Your task to perform on an android device: turn off wifi Image 0: 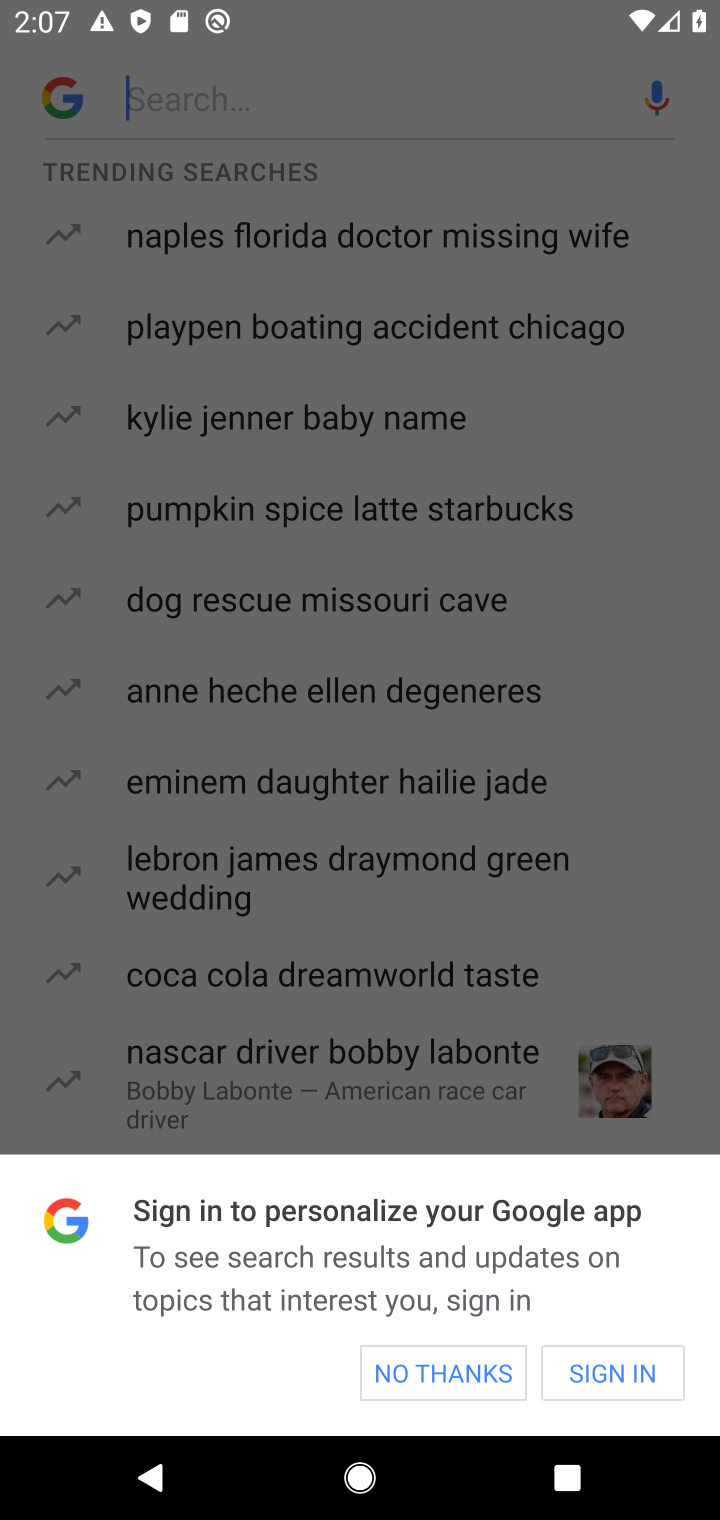
Step 0: press home button
Your task to perform on an android device: turn off wifi Image 1: 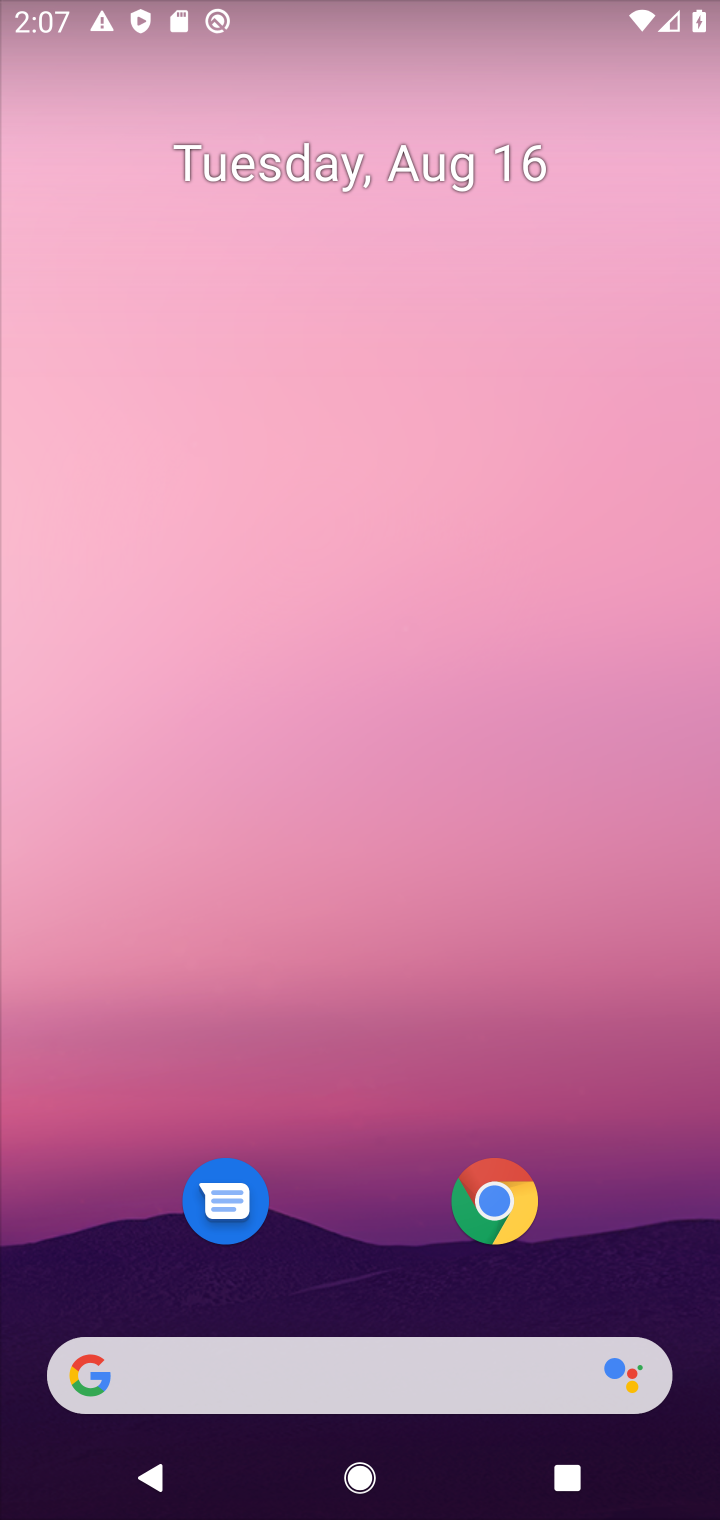
Step 1: drag from (440, 84) to (362, 518)
Your task to perform on an android device: turn off wifi Image 2: 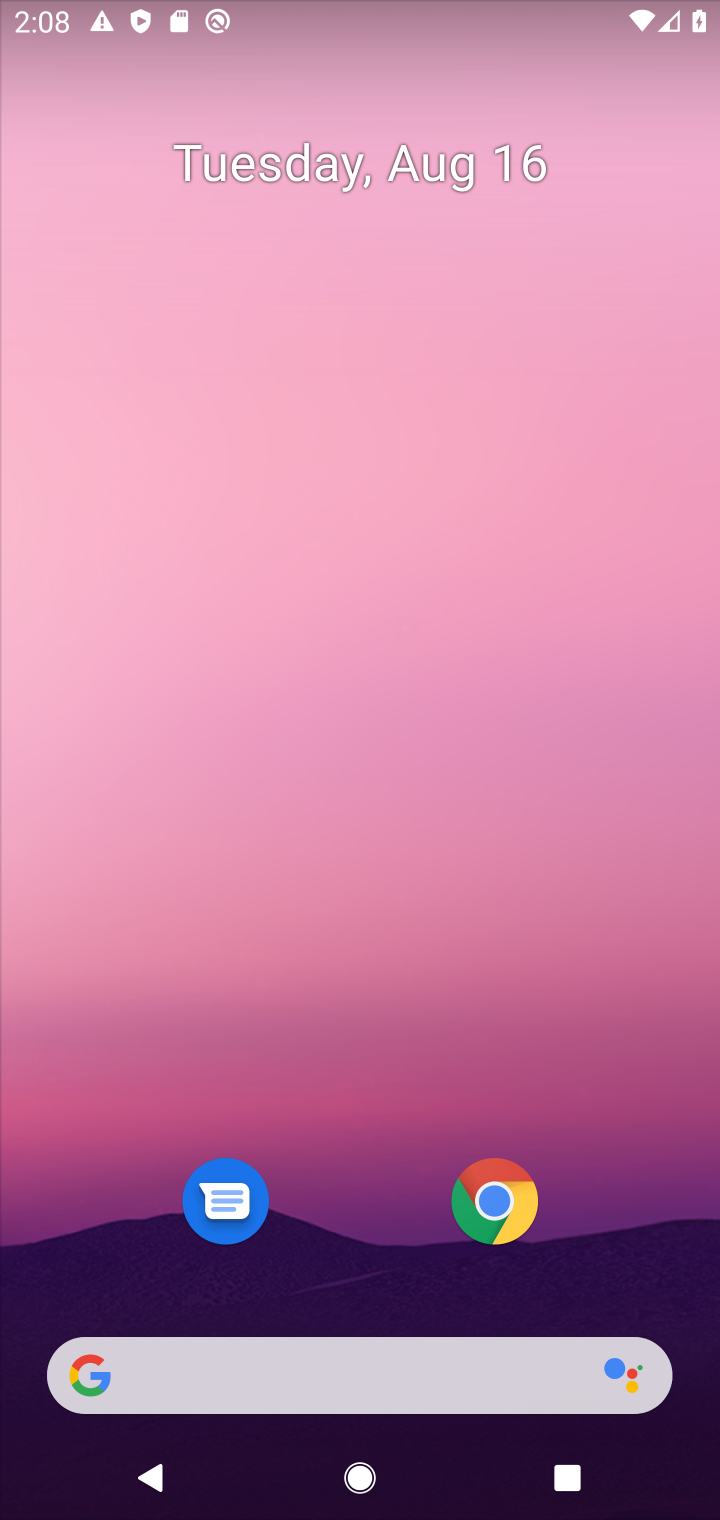
Step 2: drag from (380, 742) to (461, 227)
Your task to perform on an android device: turn off wifi Image 3: 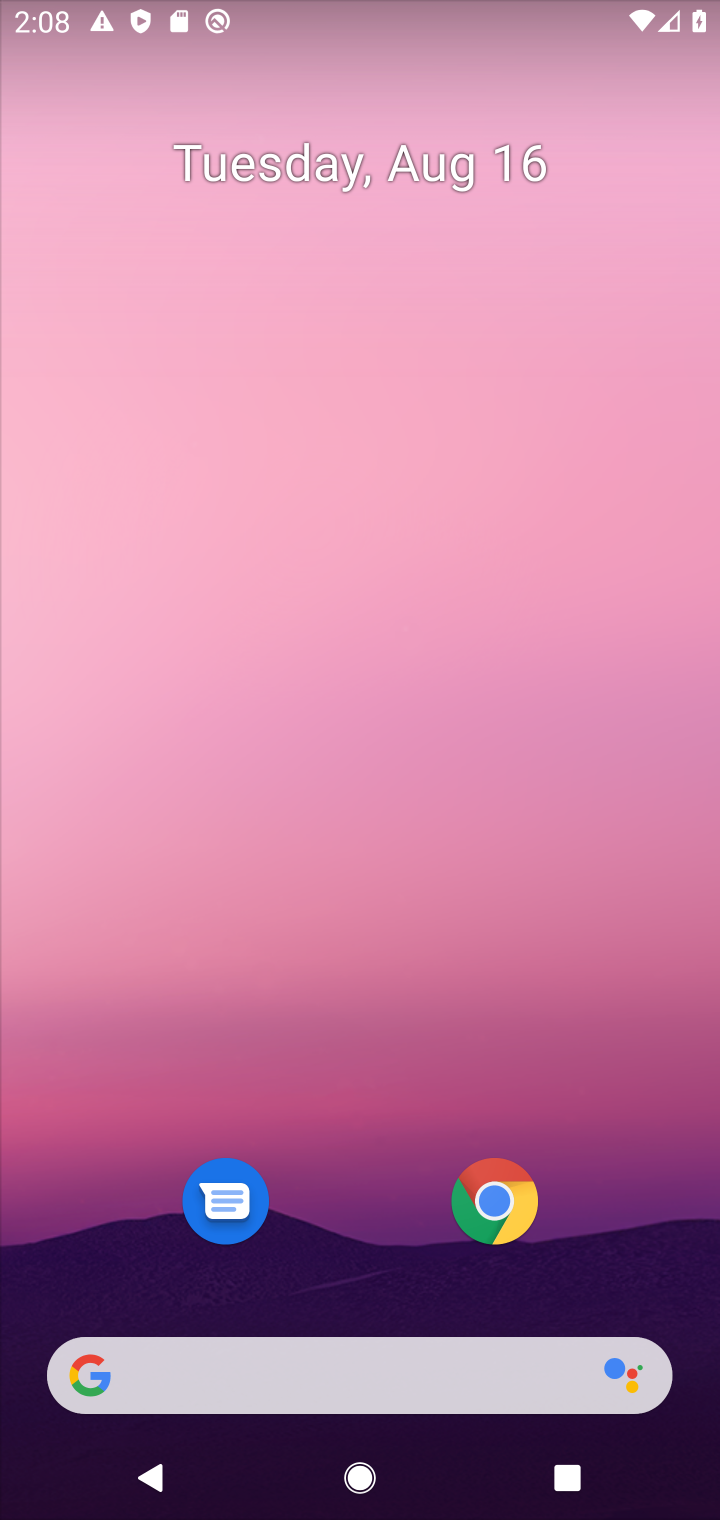
Step 3: drag from (351, 1183) to (345, 98)
Your task to perform on an android device: turn off wifi Image 4: 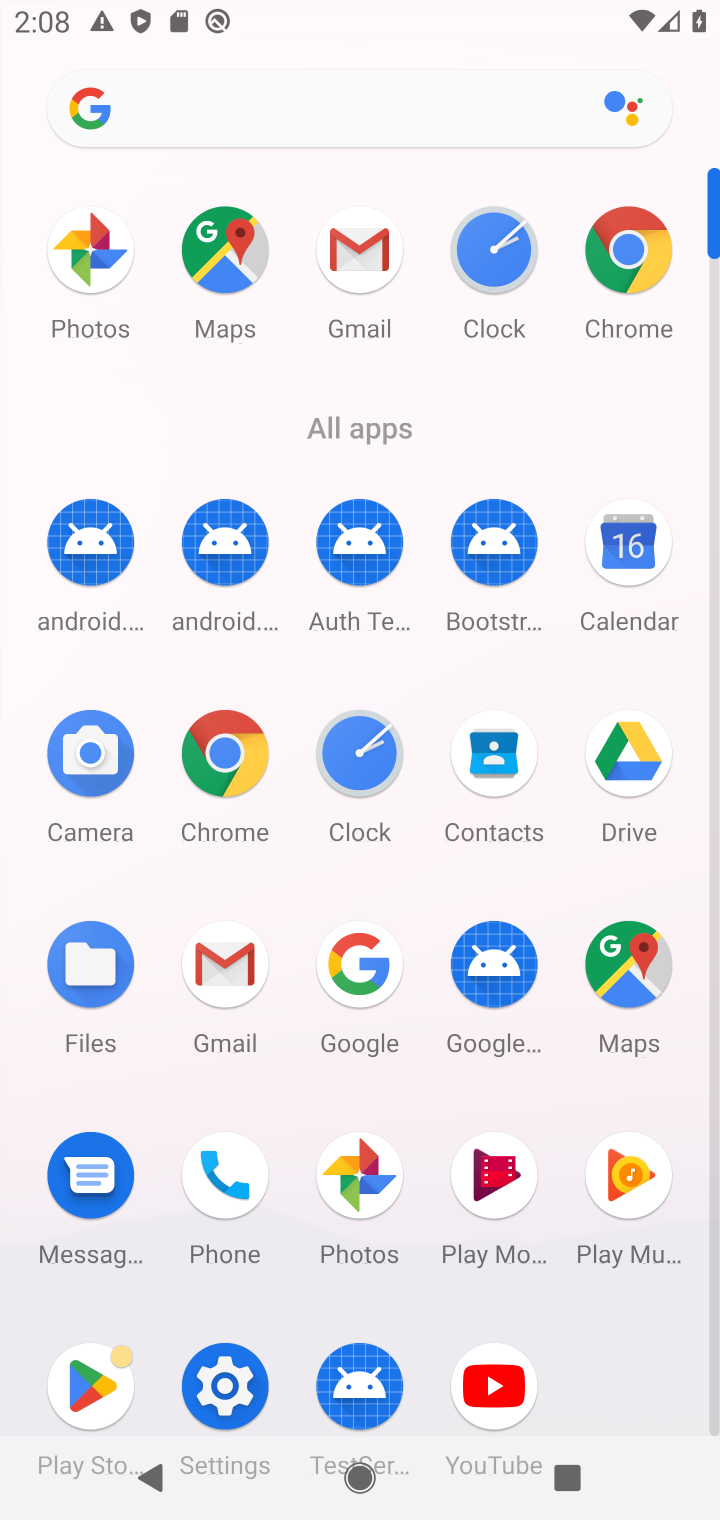
Step 4: click (249, 1400)
Your task to perform on an android device: turn off wifi Image 5: 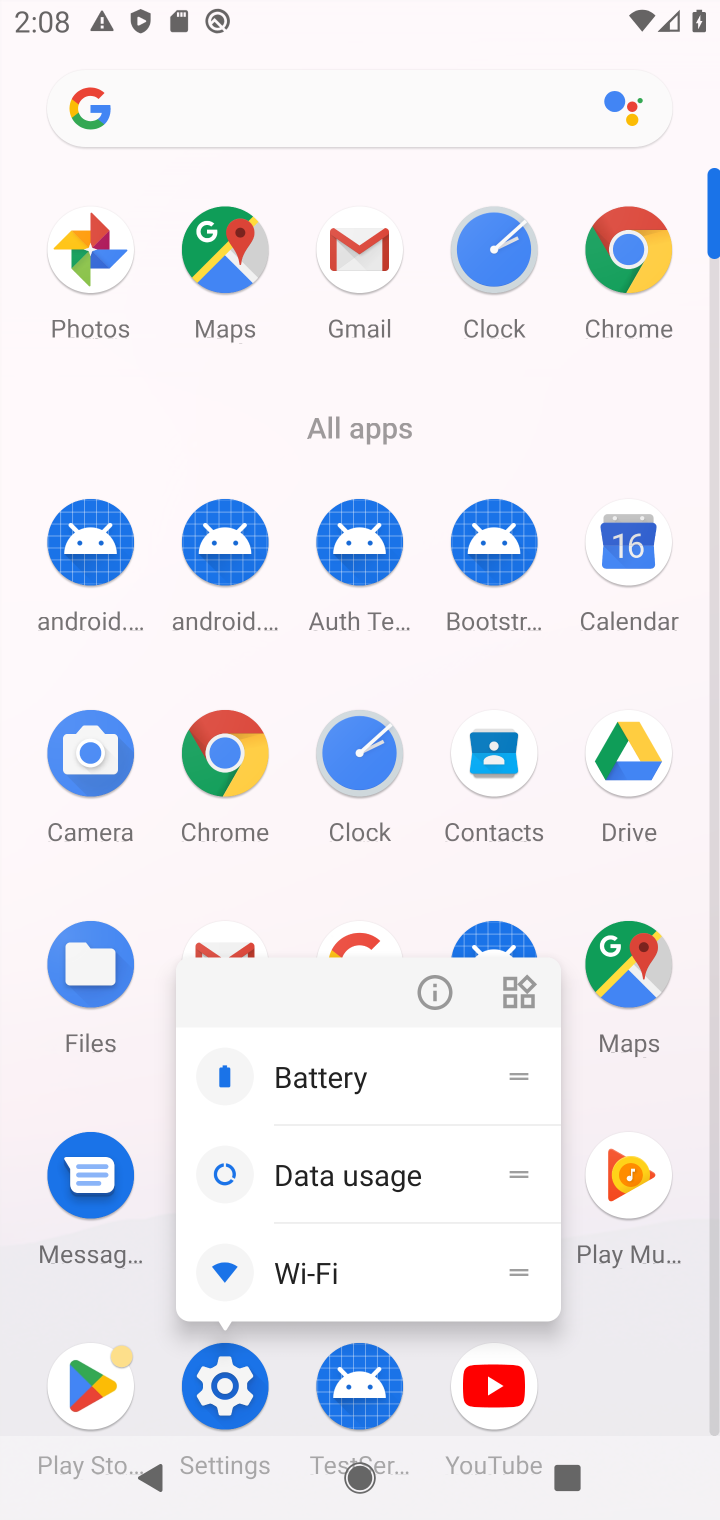
Step 5: click (249, 1400)
Your task to perform on an android device: turn off wifi Image 6: 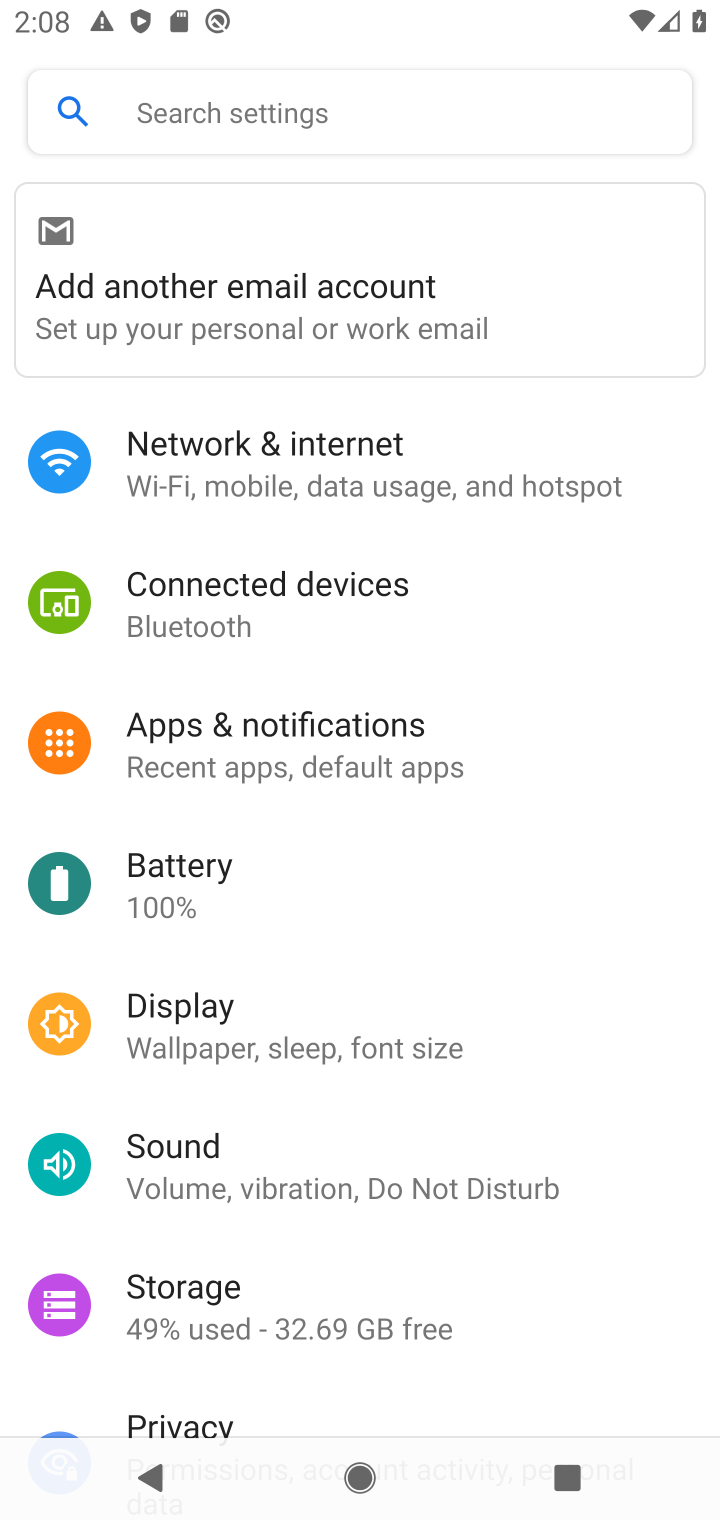
Step 6: click (337, 458)
Your task to perform on an android device: turn off wifi Image 7: 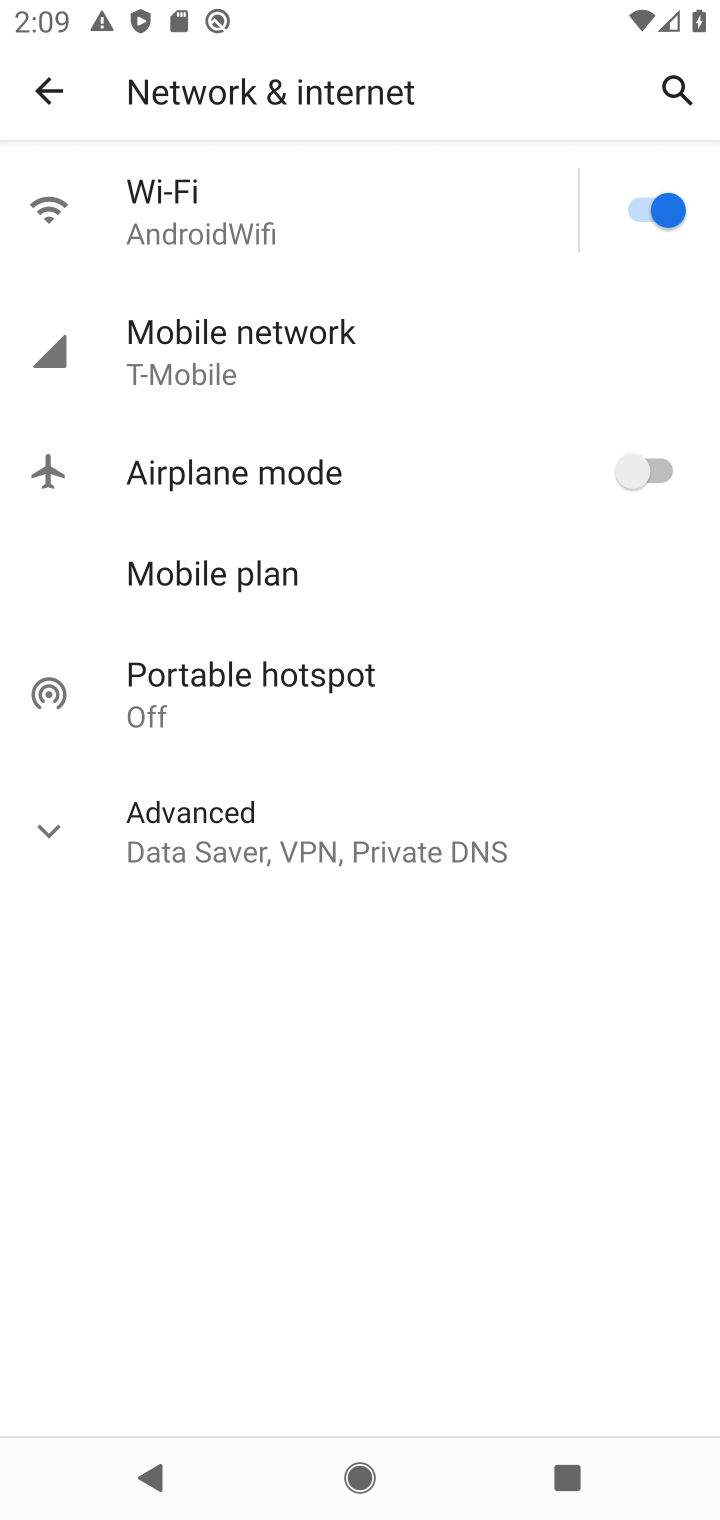
Step 7: click (668, 203)
Your task to perform on an android device: turn off wifi Image 8: 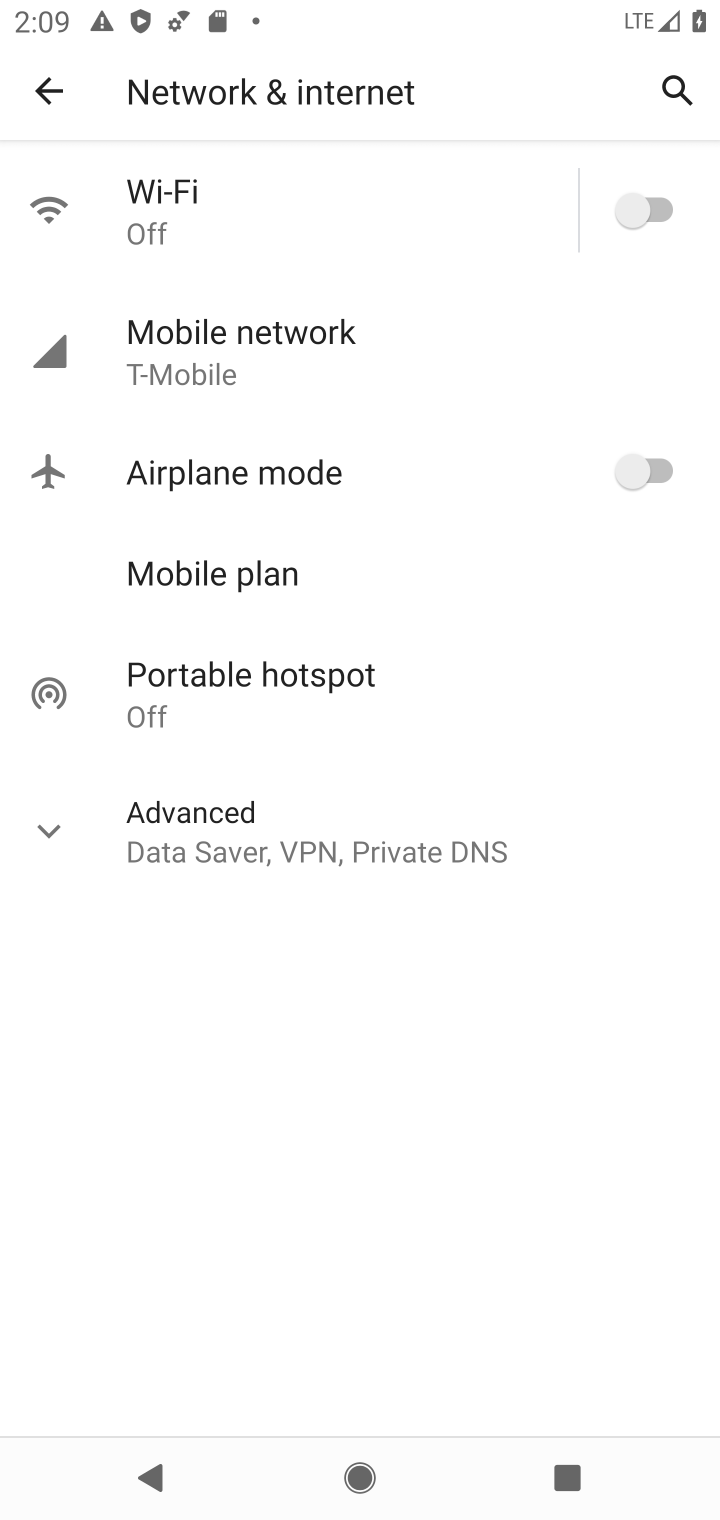
Step 8: task complete